Your task to perform on an android device: delete browsing data in the chrome app Image 0: 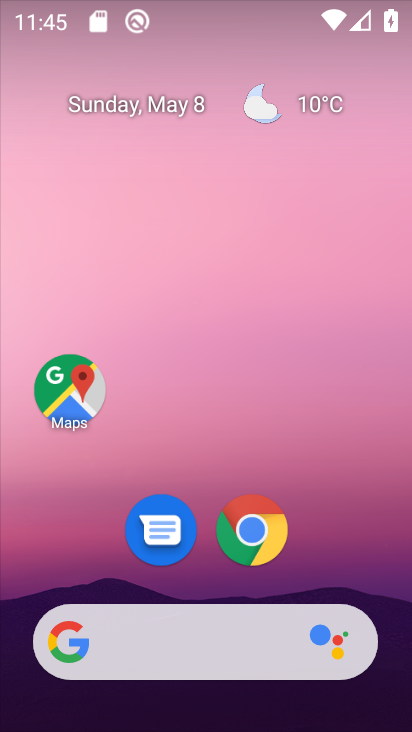
Step 0: click (253, 524)
Your task to perform on an android device: delete browsing data in the chrome app Image 1: 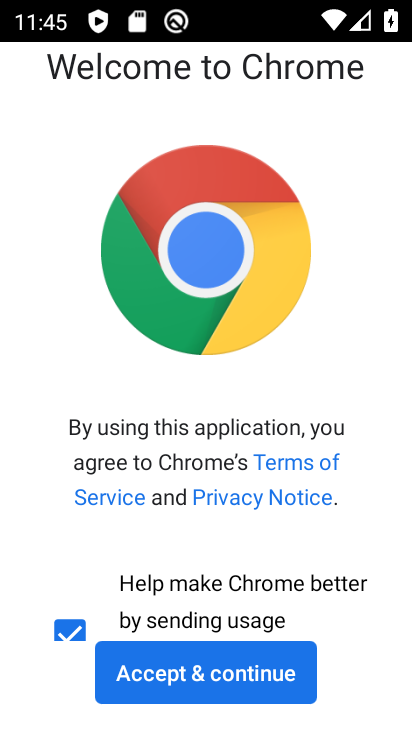
Step 1: click (208, 657)
Your task to perform on an android device: delete browsing data in the chrome app Image 2: 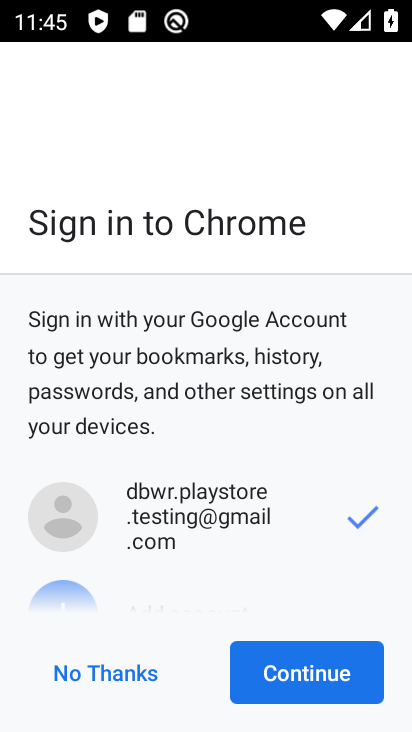
Step 2: click (345, 677)
Your task to perform on an android device: delete browsing data in the chrome app Image 3: 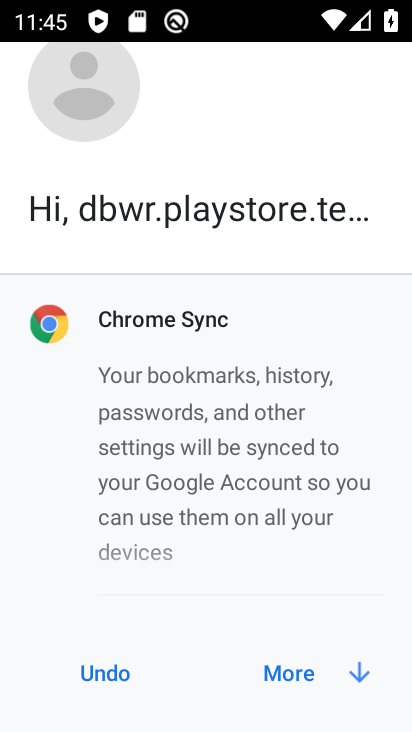
Step 3: click (292, 658)
Your task to perform on an android device: delete browsing data in the chrome app Image 4: 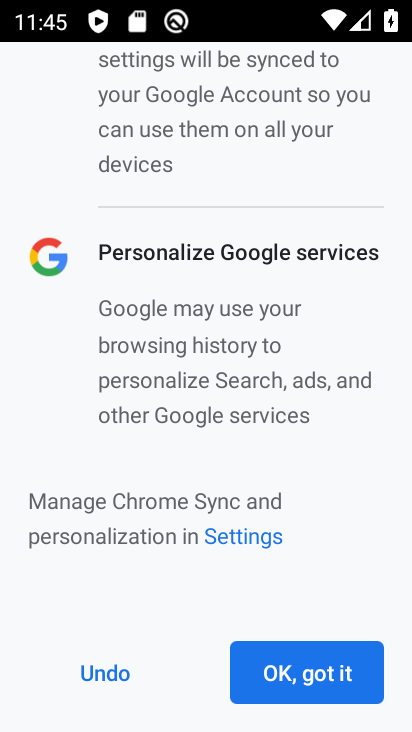
Step 4: click (292, 658)
Your task to perform on an android device: delete browsing data in the chrome app Image 5: 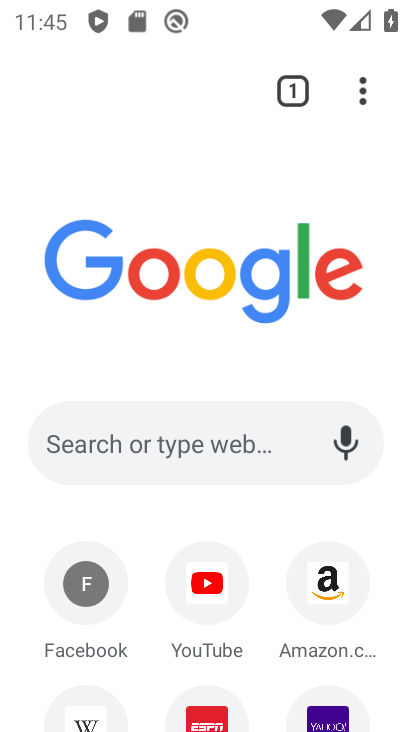
Step 5: click (374, 89)
Your task to perform on an android device: delete browsing data in the chrome app Image 6: 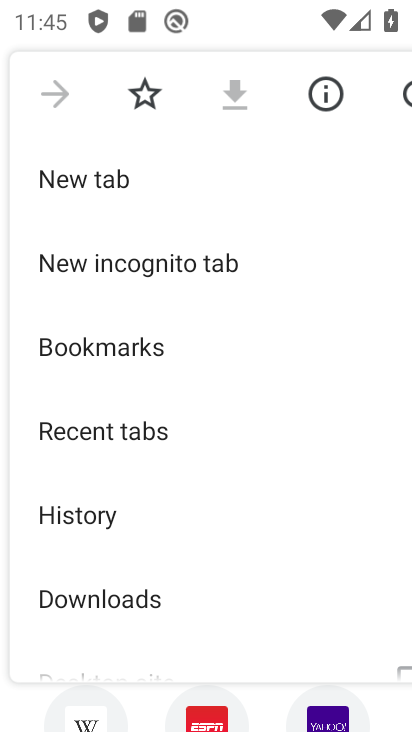
Step 6: drag from (93, 573) to (203, 124)
Your task to perform on an android device: delete browsing data in the chrome app Image 7: 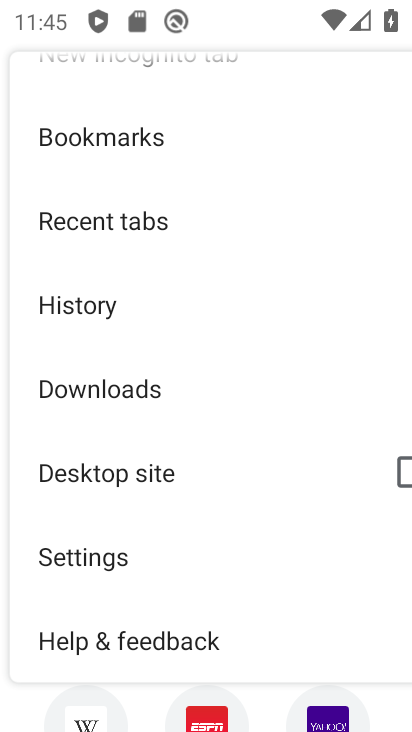
Step 7: drag from (120, 579) to (224, 261)
Your task to perform on an android device: delete browsing data in the chrome app Image 8: 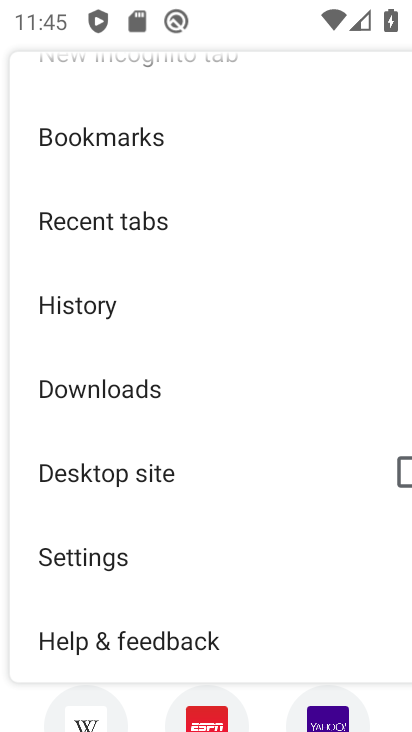
Step 8: click (129, 562)
Your task to perform on an android device: delete browsing data in the chrome app Image 9: 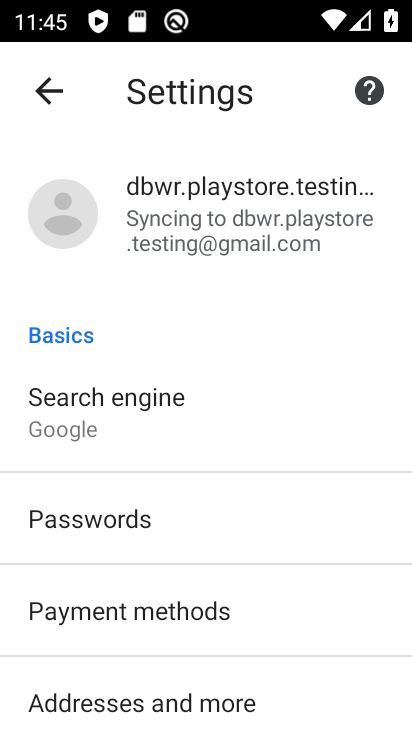
Step 9: drag from (121, 568) to (212, 87)
Your task to perform on an android device: delete browsing data in the chrome app Image 10: 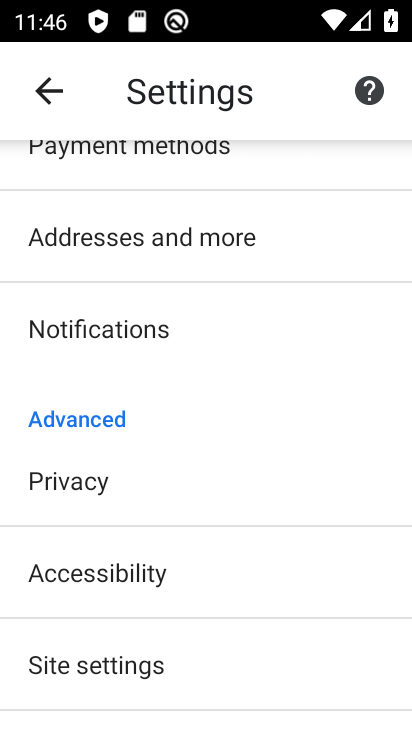
Step 10: drag from (100, 545) to (219, 141)
Your task to perform on an android device: delete browsing data in the chrome app Image 11: 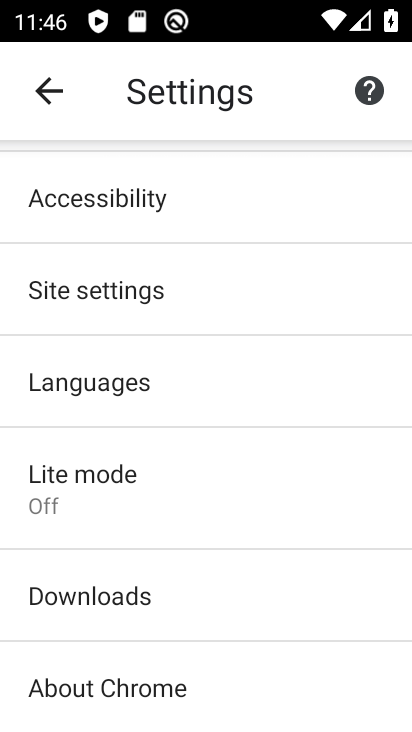
Step 11: click (61, 84)
Your task to perform on an android device: delete browsing data in the chrome app Image 12: 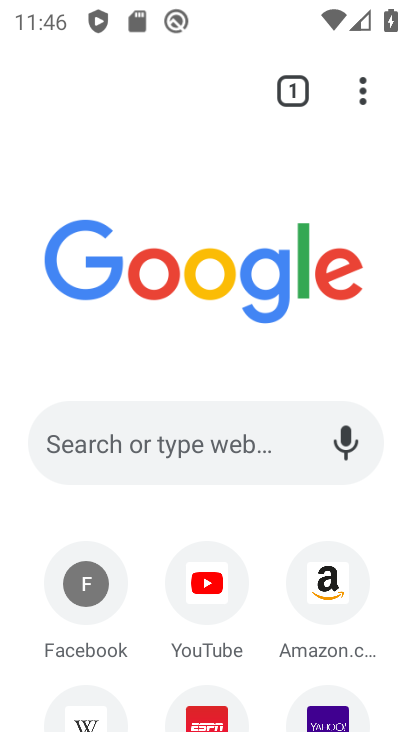
Step 12: click (390, 91)
Your task to perform on an android device: delete browsing data in the chrome app Image 13: 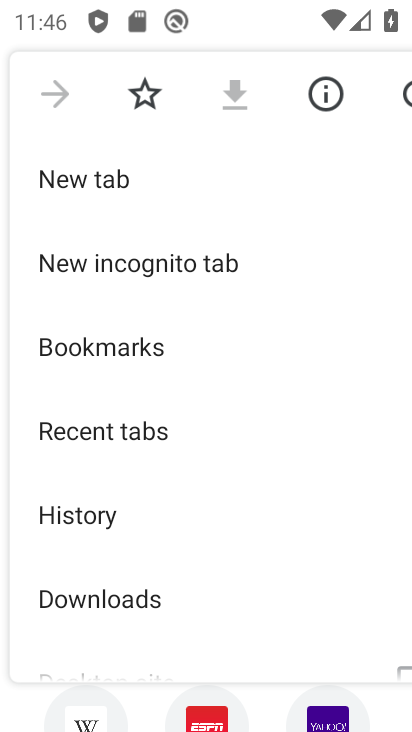
Step 13: drag from (115, 513) to (213, 173)
Your task to perform on an android device: delete browsing data in the chrome app Image 14: 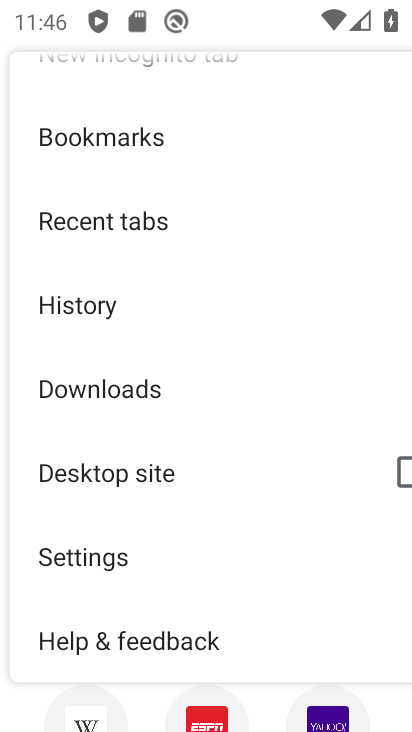
Step 14: drag from (248, 194) to (209, 606)
Your task to perform on an android device: delete browsing data in the chrome app Image 15: 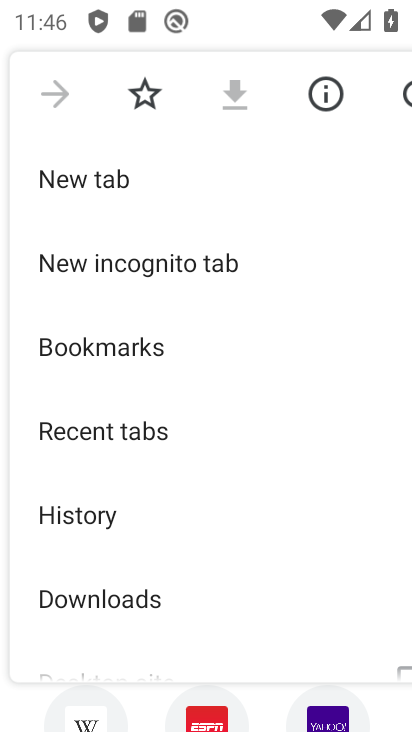
Step 15: click (84, 502)
Your task to perform on an android device: delete browsing data in the chrome app Image 16: 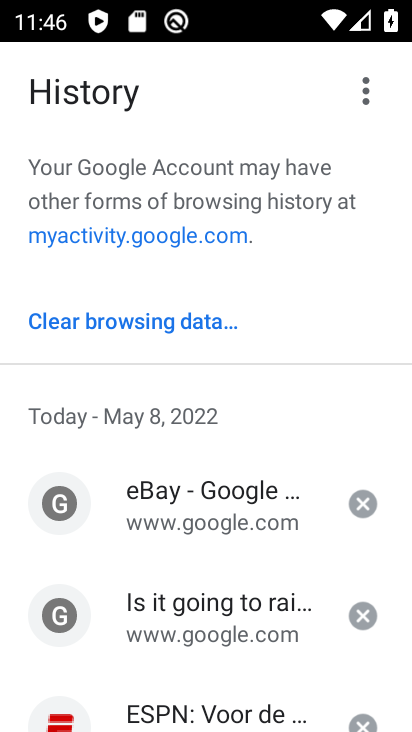
Step 16: click (144, 323)
Your task to perform on an android device: delete browsing data in the chrome app Image 17: 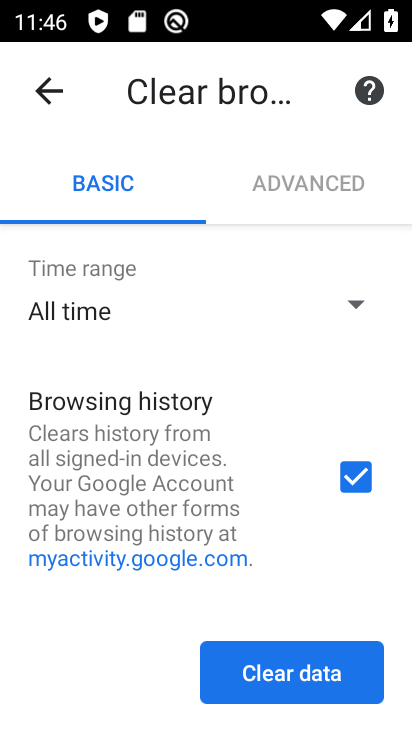
Step 17: click (245, 654)
Your task to perform on an android device: delete browsing data in the chrome app Image 18: 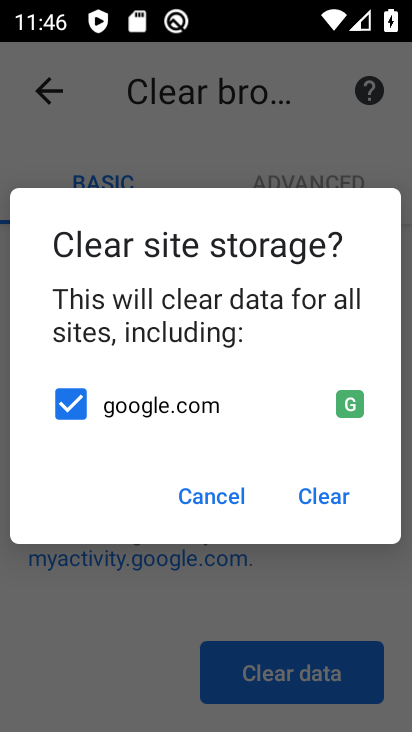
Step 18: click (336, 490)
Your task to perform on an android device: delete browsing data in the chrome app Image 19: 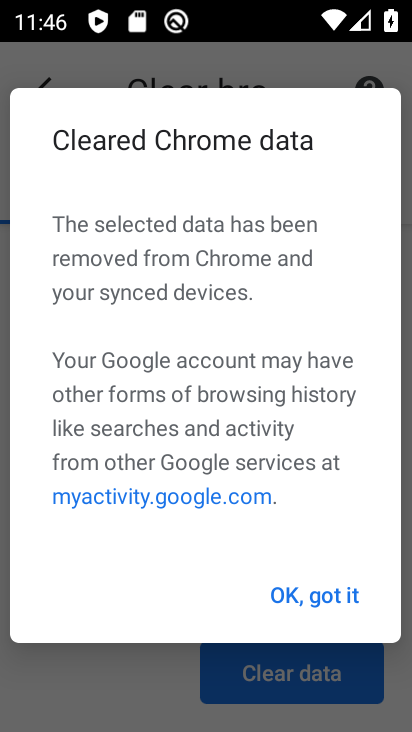
Step 19: click (355, 592)
Your task to perform on an android device: delete browsing data in the chrome app Image 20: 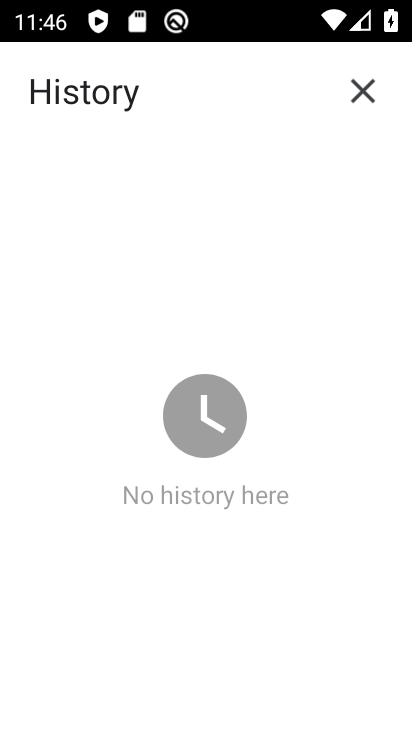
Step 20: task complete